Your task to perform on an android device: Do I have any events tomorrow? Image 0: 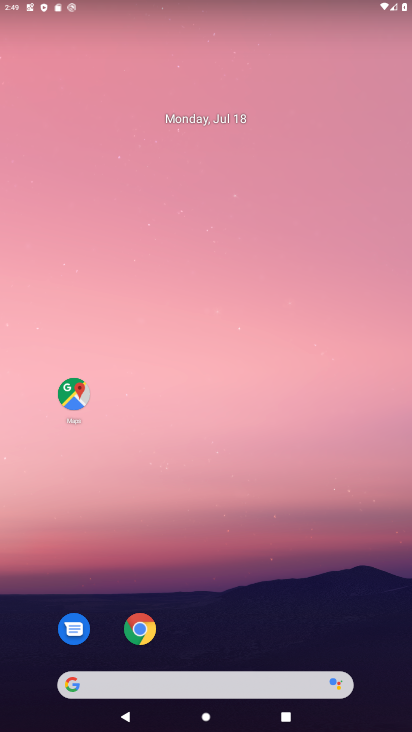
Step 0: drag from (244, 614) to (243, 130)
Your task to perform on an android device: Do I have any events tomorrow? Image 1: 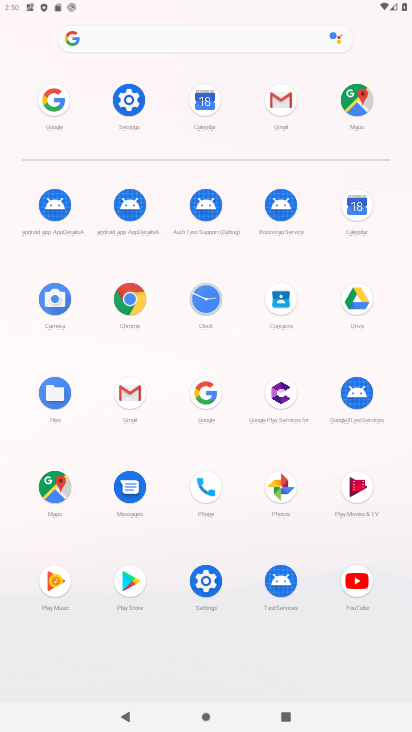
Step 1: click (199, 102)
Your task to perform on an android device: Do I have any events tomorrow? Image 2: 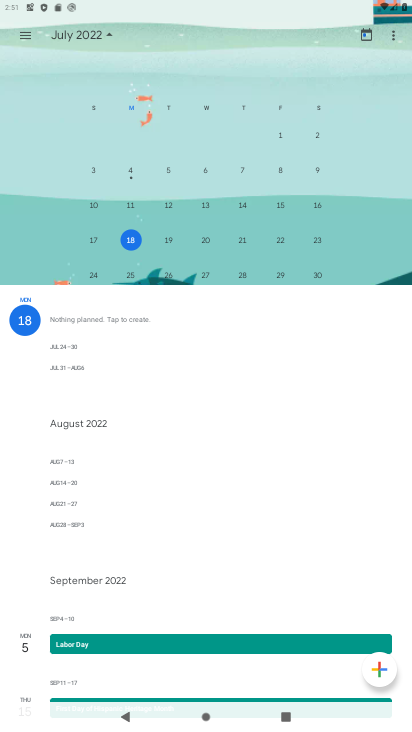
Step 2: task complete